Your task to perform on an android device: Open my contact list Image 0: 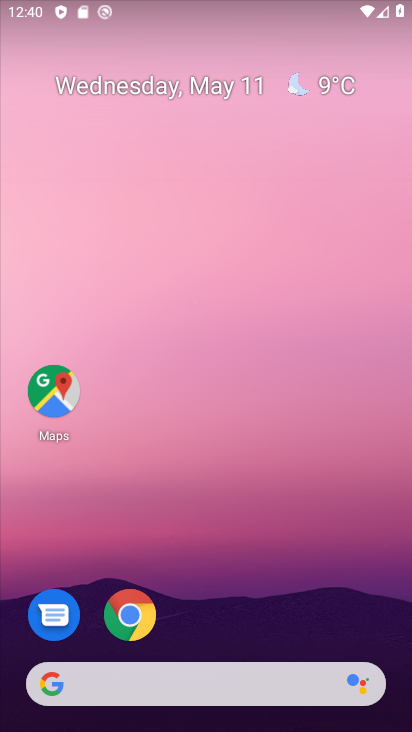
Step 0: drag from (274, 617) to (313, 122)
Your task to perform on an android device: Open my contact list Image 1: 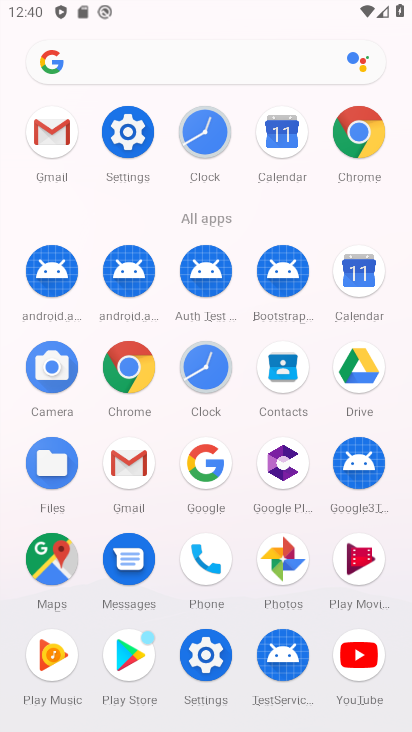
Step 1: click (269, 388)
Your task to perform on an android device: Open my contact list Image 2: 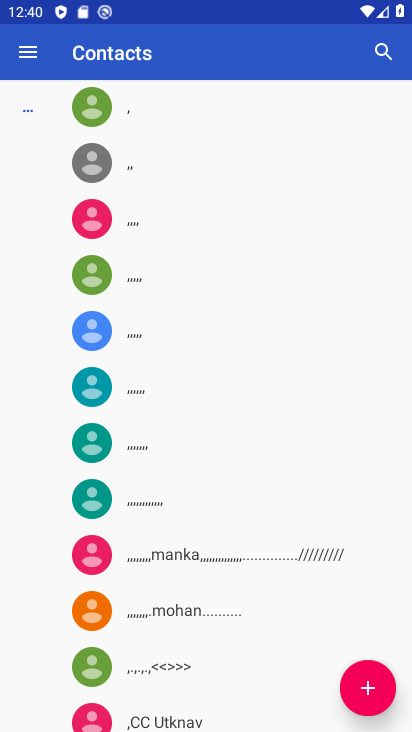
Step 2: task complete